Your task to perform on an android device: Play the last video I watched on Youtube Image 0: 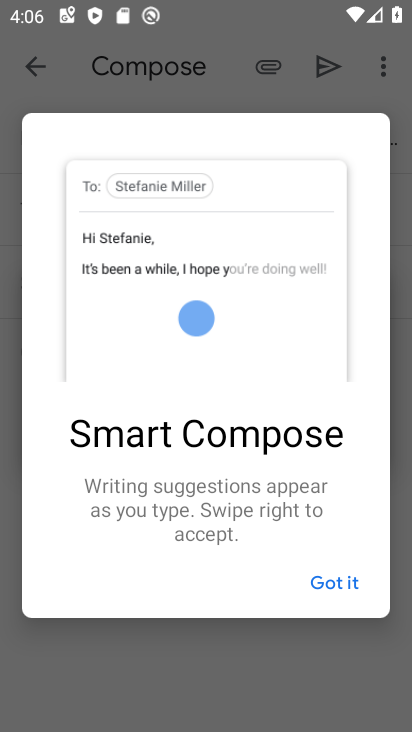
Step 0: press home button
Your task to perform on an android device: Play the last video I watched on Youtube Image 1: 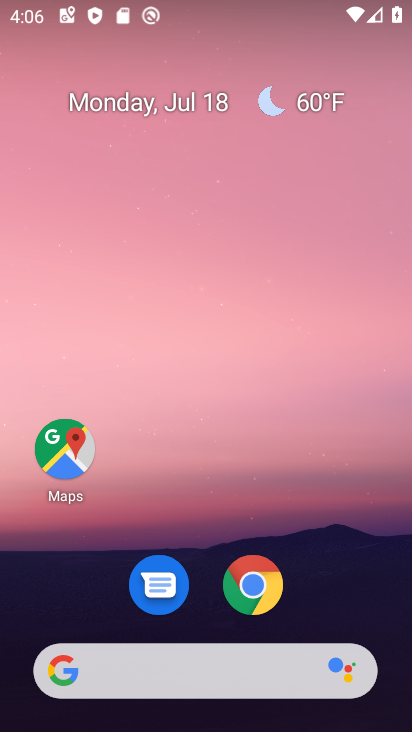
Step 1: drag from (344, 589) to (392, 12)
Your task to perform on an android device: Play the last video I watched on Youtube Image 2: 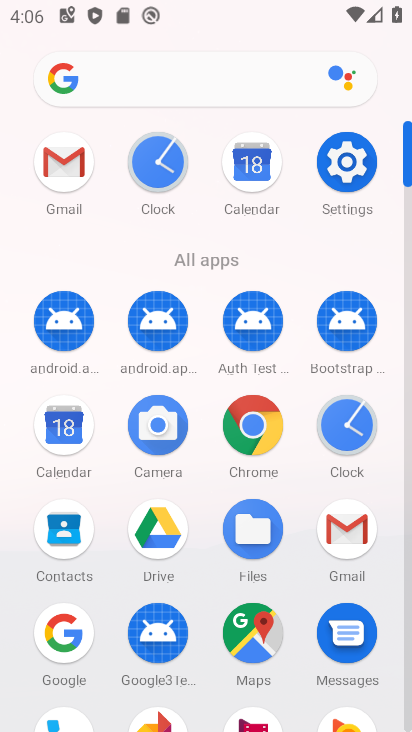
Step 2: drag from (102, 496) to (159, 189)
Your task to perform on an android device: Play the last video I watched on Youtube Image 3: 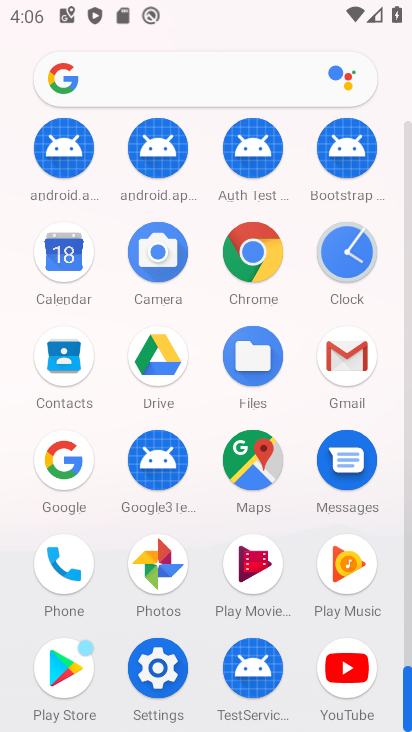
Step 3: click (75, 660)
Your task to perform on an android device: Play the last video I watched on Youtube Image 4: 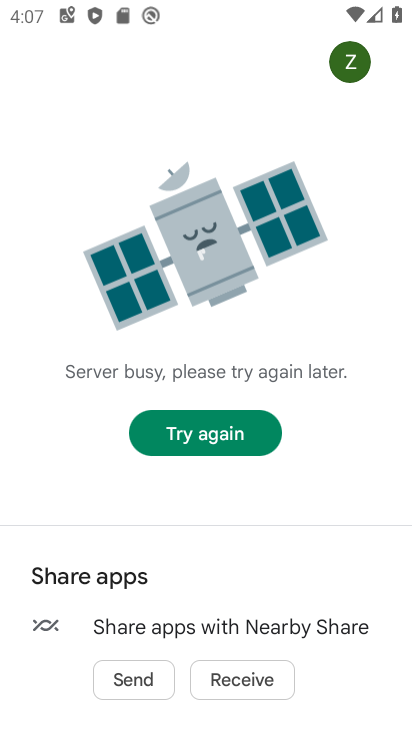
Step 4: click (240, 429)
Your task to perform on an android device: Play the last video I watched on Youtube Image 5: 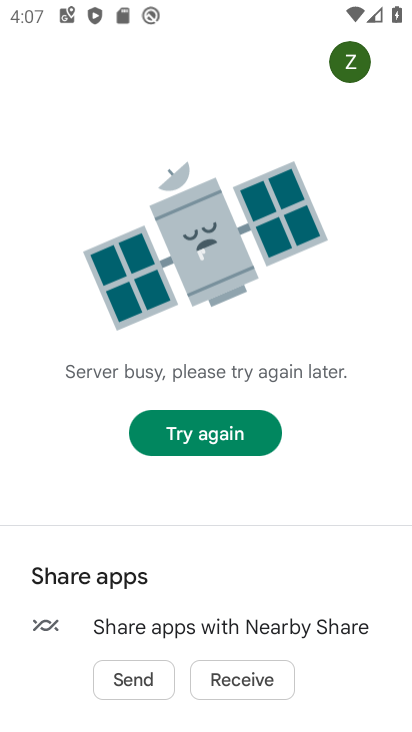
Step 5: press home button
Your task to perform on an android device: Play the last video I watched on Youtube Image 6: 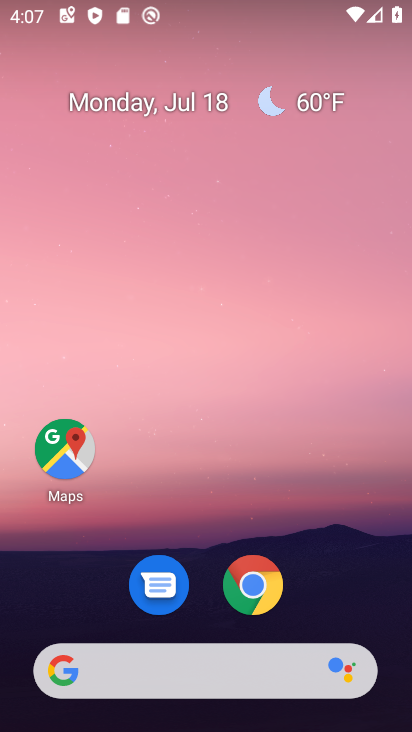
Step 6: drag from (204, 528) to (254, 25)
Your task to perform on an android device: Play the last video I watched on Youtube Image 7: 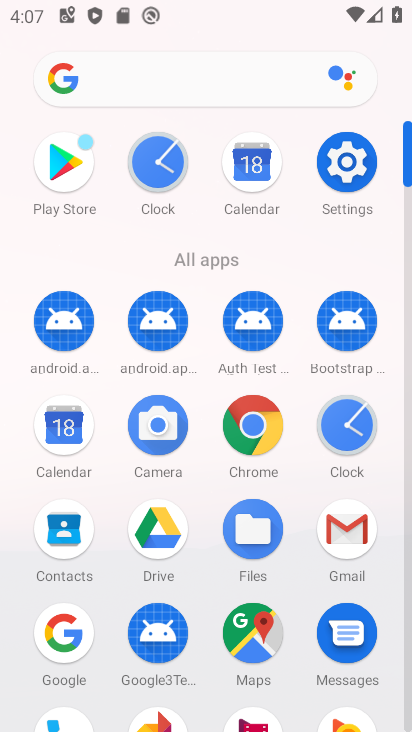
Step 7: drag from (221, 534) to (252, 53)
Your task to perform on an android device: Play the last video I watched on Youtube Image 8: 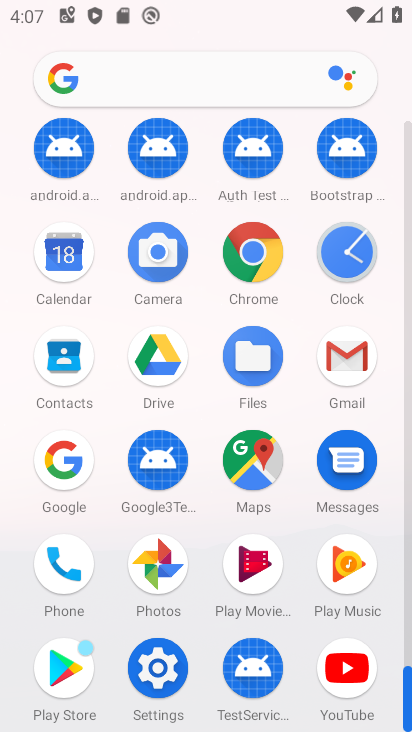
Step 8: click (347, 669)
Your task to perform on an android device: Play the last video I watched on Youtube Image 9: 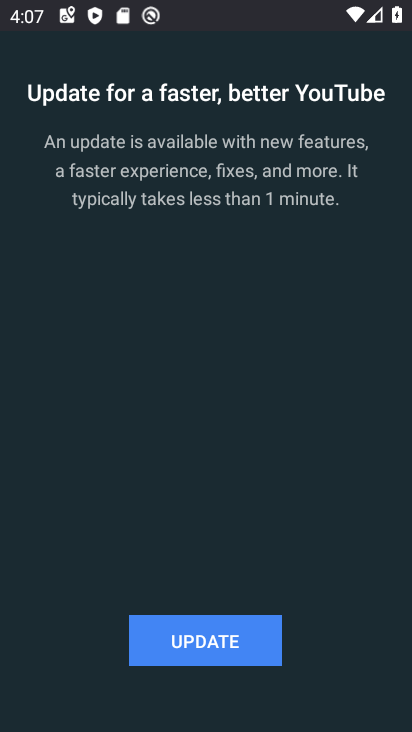
Step 9: click (212, 635)
Your task to perform on an android device: Play the last video I watched on Youtube Image 10: 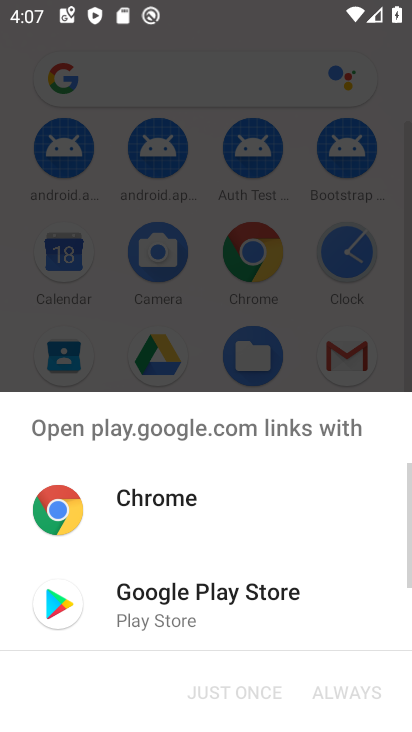
Step 10: click (171, 588)
Your task to perform on an android device: Play the last video I watched on Youtube Image 11: 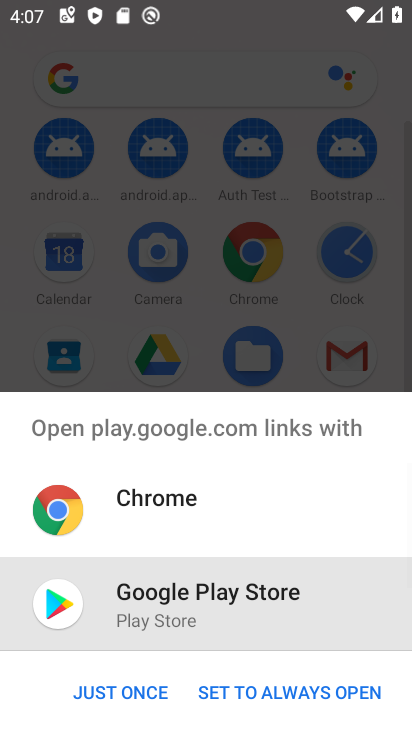
Step 11: click (150, 696)
Your task to perform on an android device: Play the last video I watched on Youtube Image 12: 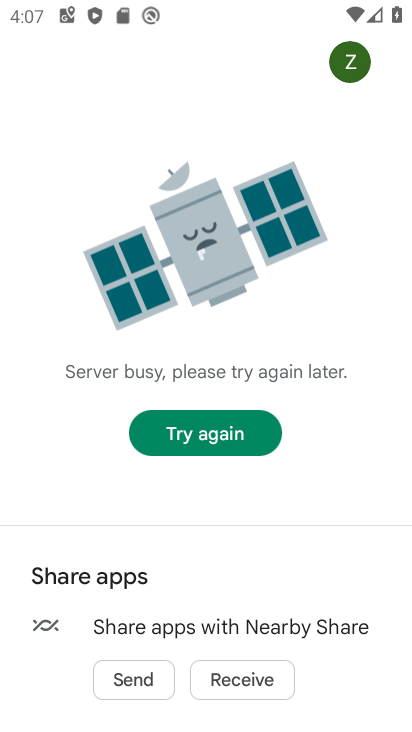
Step 12: click (238, 448)
Your task to perform on an android device: Play the last video I watched on Youtube Image 13: 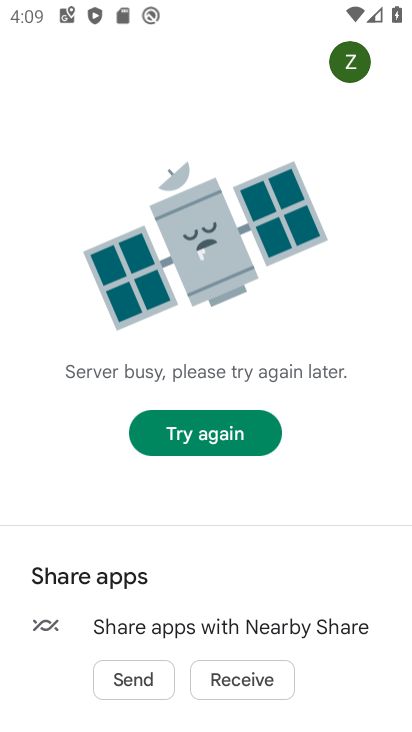
Step 13: task complete